Your task to perform on an android device: Find coffee shops on Maps Image 0: 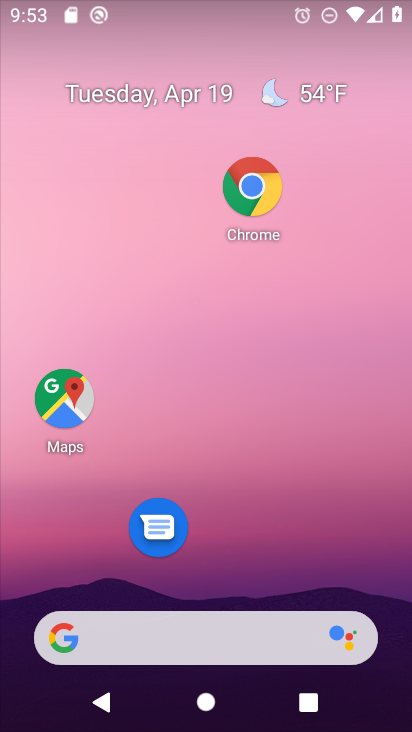
Step 0: click (281, 285)
Your task to perform on an android device: Find coffee shops on Maps Image 1: 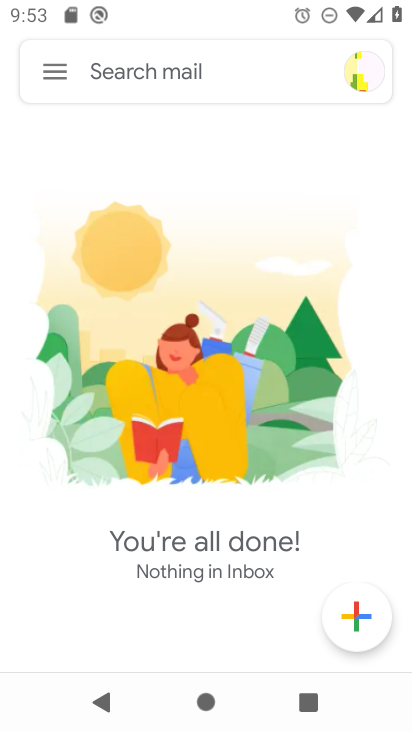
Step 1: press home button
Your task to perform on an android device: Find coffee shops on Maps Image 2: 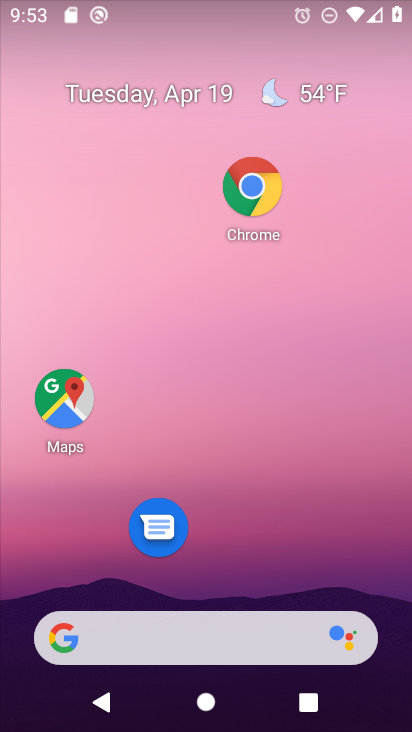
Step 2: drag from (237, 584) to (294, 180)
Your task to perform on an android device: Find coffee shops on Maps Image 3: 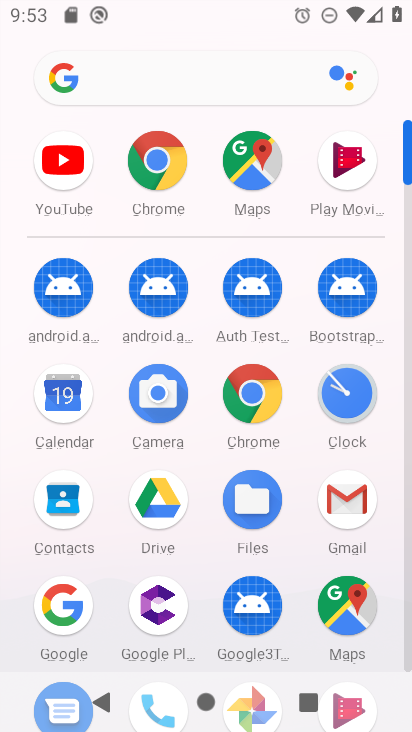
Step 3: click (342, 601)
Your task to perform on an android device: Find coffee shops on Maps Image 4: 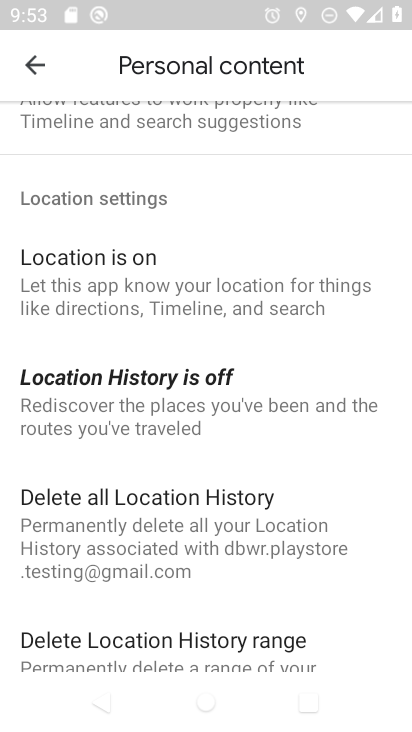
Step 4: click (29, 66)
Your task to perform on an android device: Find coffee shops on Maps Image 5: 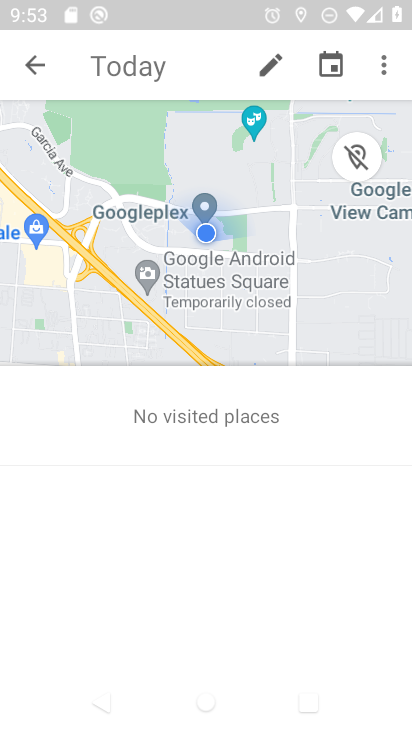
Step 5: click (28, 65)
Your task to perform on an android device: Find coffee shops on Maps Image 6: 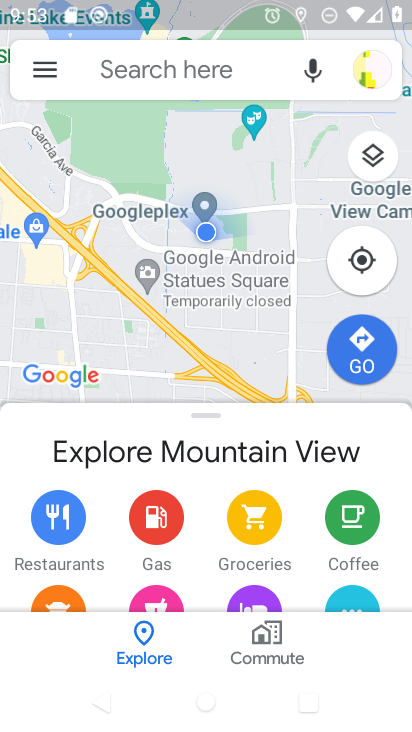
Step 6: click (198, 53)
Your task to perform on an android device: Find coffee shops on Maps Image 7: 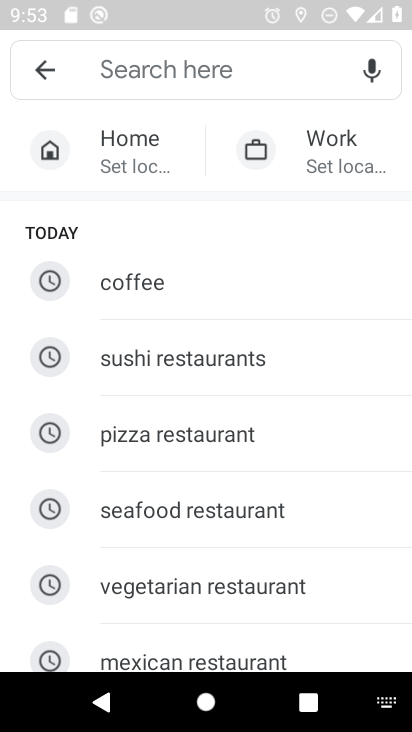
Step 7: type " coffee shops "
Your task to perform on an android device: Find coffee shops on Maps Image 8: 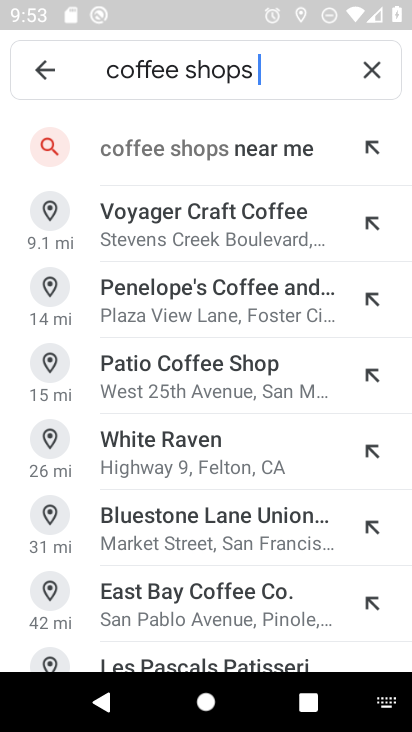
Step 8: click (234, 153)
Your task to perform on an android device: Find coffee shops on Maps Image 9: 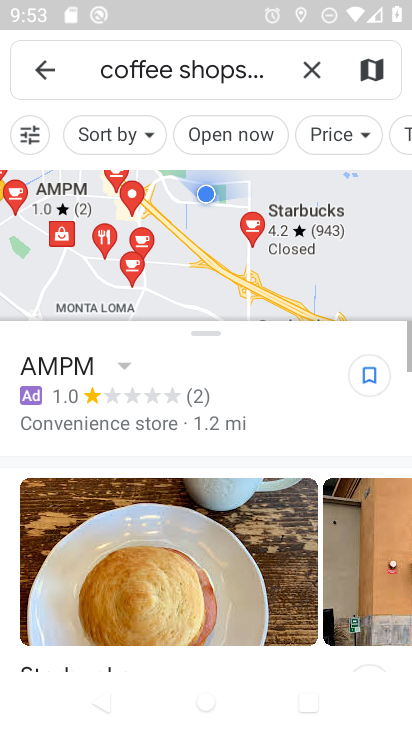
Step 9: task complete